Your task to perform on an android device: Search for "lg ultragear" on costco, select the first entry, add it to the cart, then select checkout. Image 0: 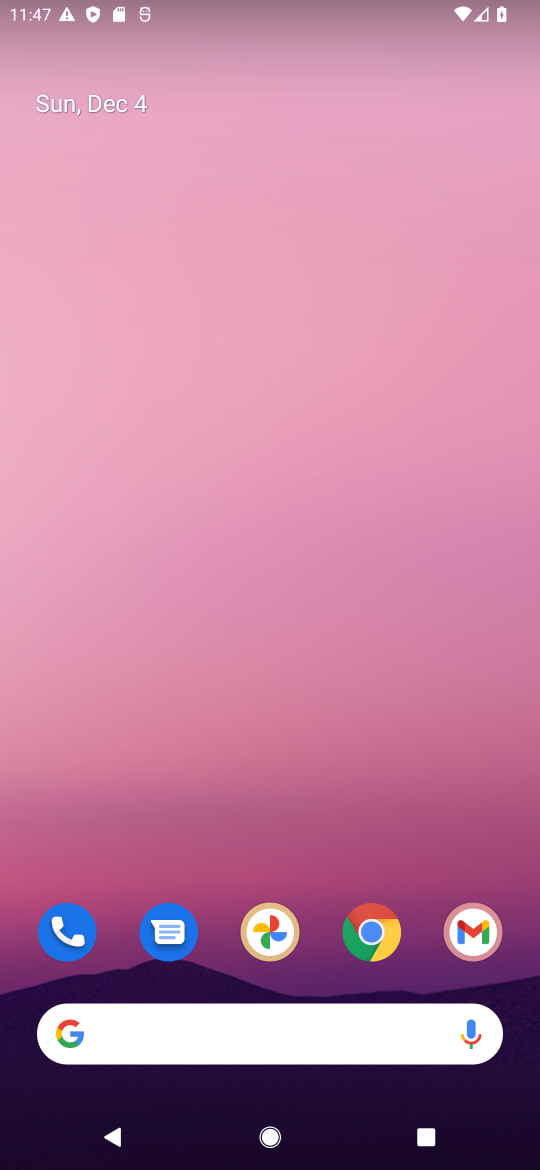
Step 0: task complete